Your task to perform on an android device: delete browsing data in the chrome app Image 0: 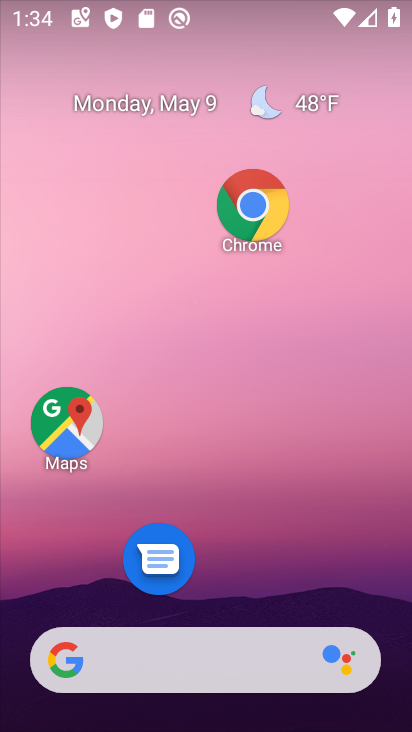
Step 0: drag from (295, 586) to (324, 268)
Your task to perform on an android device: delete browsing data in the chrome app Image 1: 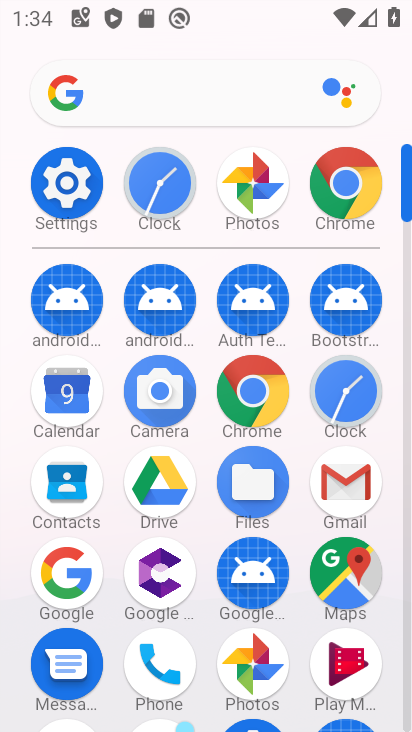
Step 1: click (239, 388)
Your task to perform on an android device: delete browsing data in the chrome app Image 2: 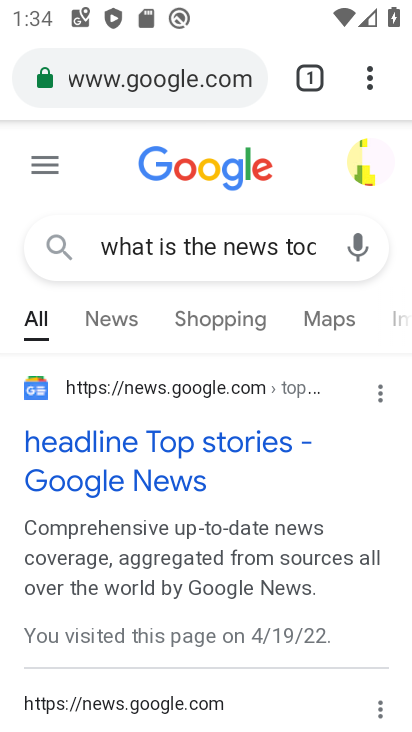
Step 2: click (368, 78)
Your task to perform on an android device: delete browsing data in the chrome app Image 3: 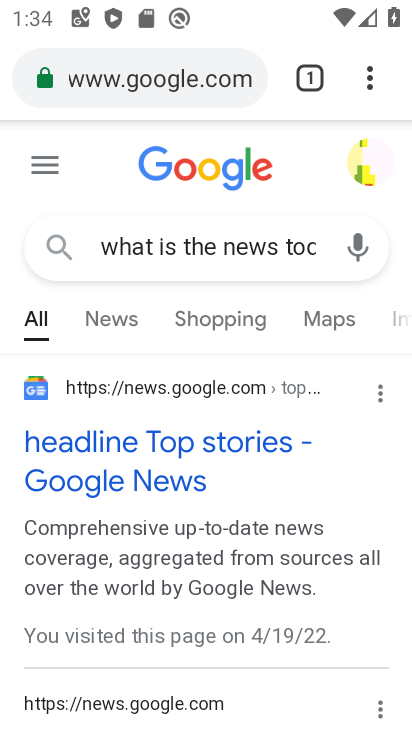
Step 3: click (354, 75)
Your task to perform on an android device: delete browsing data in the chrome app Image 4: 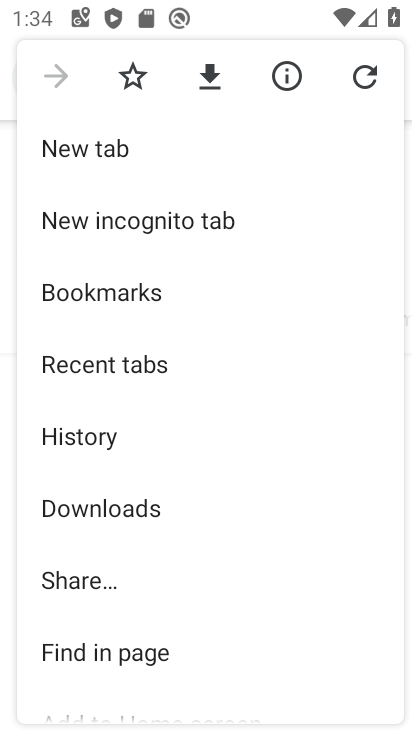
Step 4: drag from (146, 599) to (155, 440)
Your task to perform on an android device: delete browsing data in the chrome app Image 5: 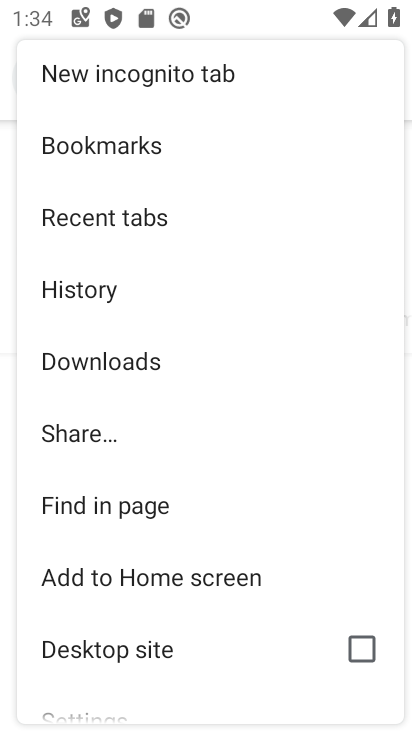
Step 5: click (120, 288)
Your task to perform on an android device: delete browsing data in the chrome app Image 6: 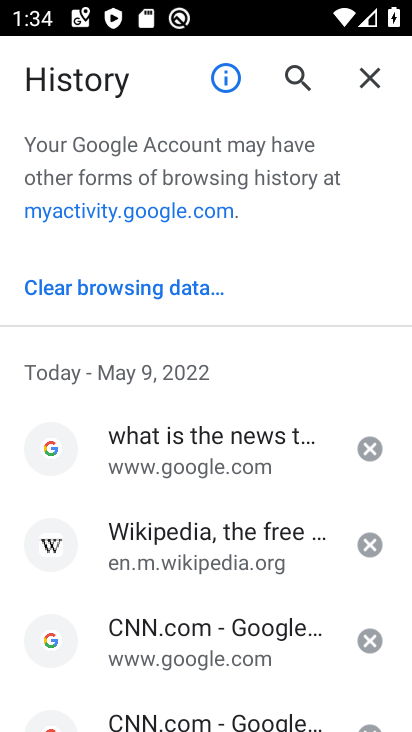
Step 6: click (130, 278)
Your task to perform on an android device: delete browsing data in the chrome app Image 7: 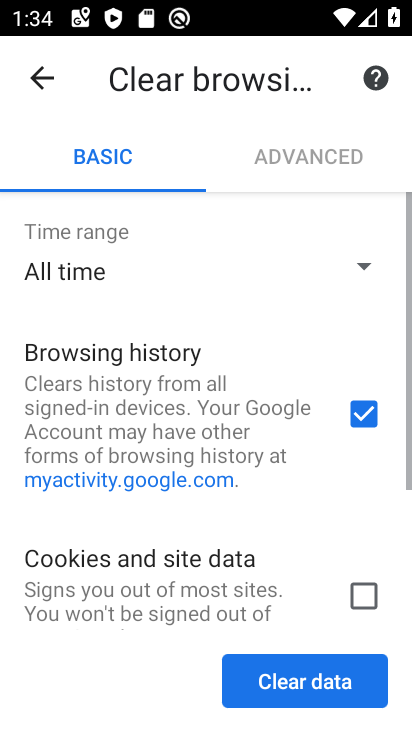
Step 7: click (310, 703)
Your task to perform on an android device: delete browsing data in the chrome app Image 8: 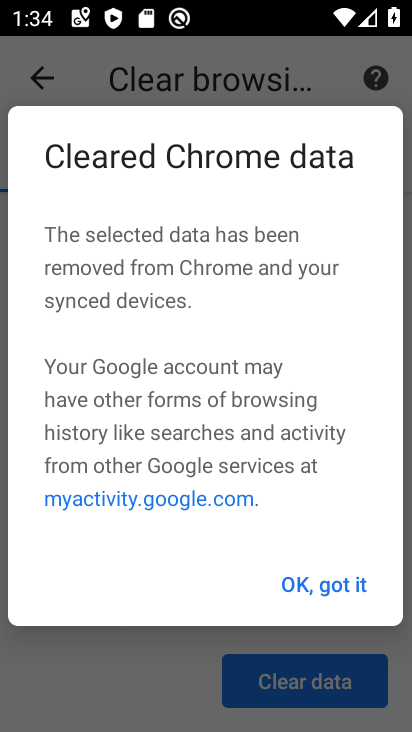
Step 8: click (320, 579)
Your task to perform on an android device: delete browsing data in the chrome app Image 9: 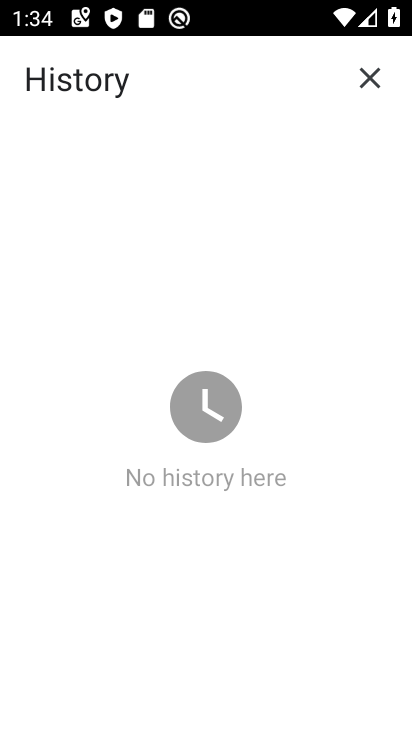
Step 9: task complete